Your task to perform on an android device: Do I have any events tomorrow? Image 0: 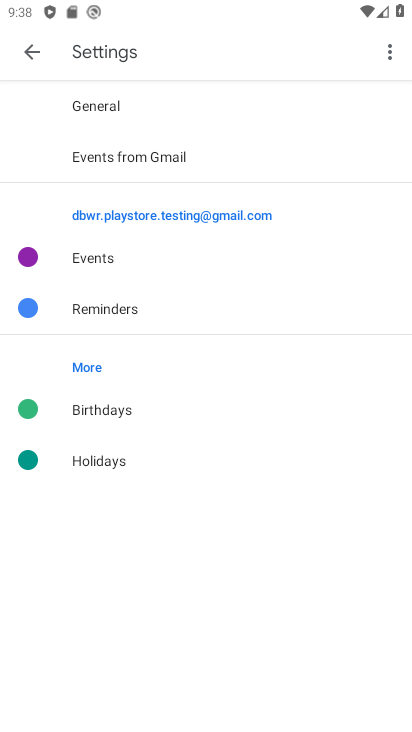
Step 0: press home button
Your task to perform on an android device: Do I have any events tomorrow? Image 1: 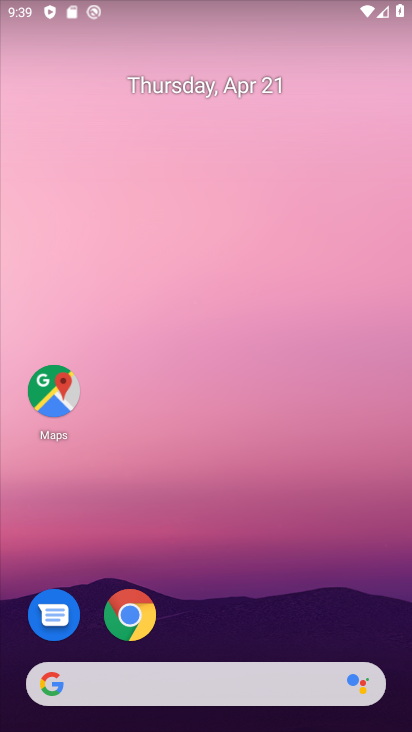
Step 1: drag from (222, 635) to (260, 91)
Your task to perform on an android device: Do I have any events tomorrow? Image 2: 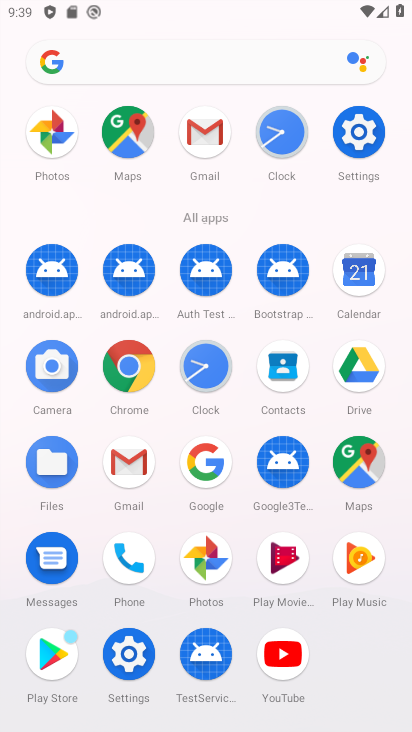
Step 2: click (355, 272)
Your task to perform on an android device: Do I have any events tomorrow? Image 3: 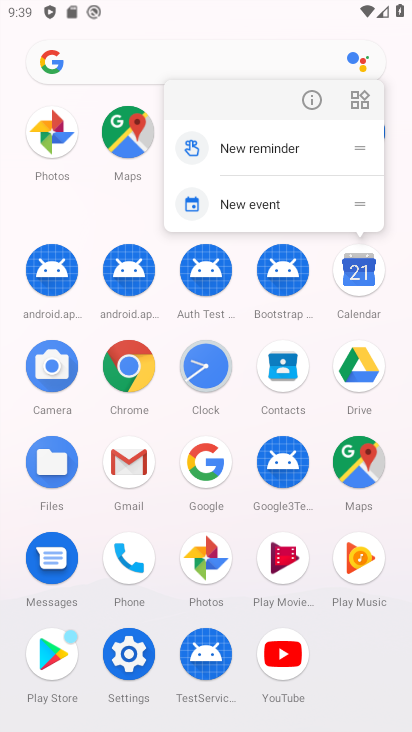
Step 3: click (358, 273)
Your task to perform on an android device: Do I have any events tomorrow? Image 4: 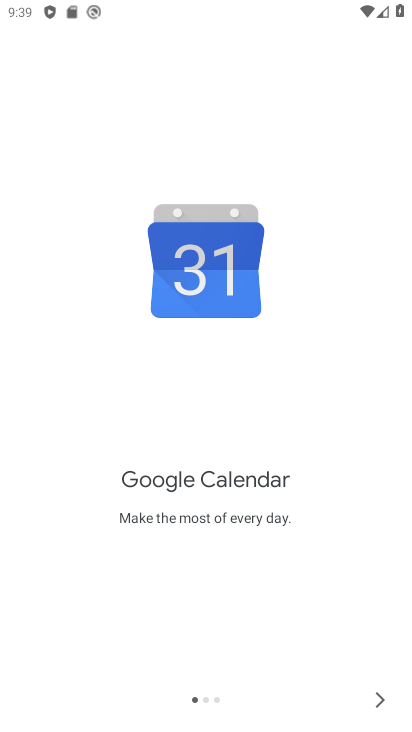
Step 4: click (372, 694)
Your task to perform on an android device: Do I have any events tomorrow? Image 5: 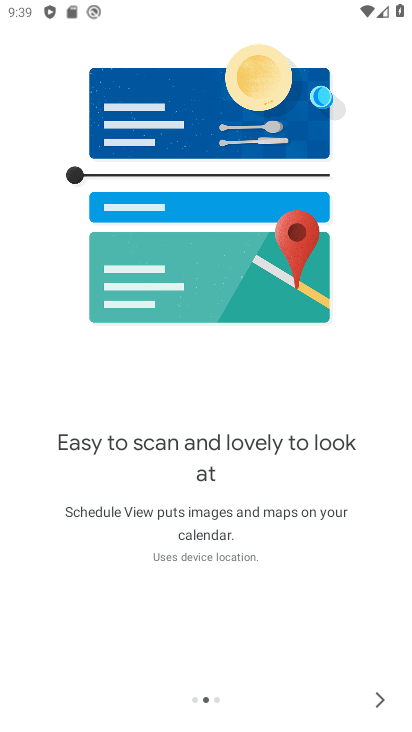
Step 5: click (372, 694)
Your task to perform on an android device: Do I have any events tomorrow? Image 6: 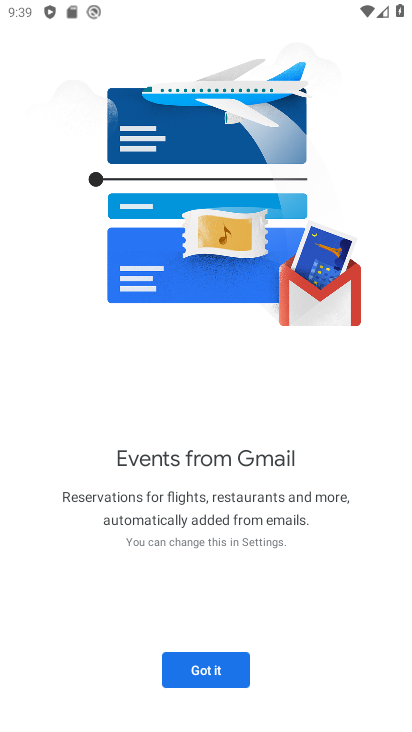
Step 6: click (199, 667)
Your task to perform on an android device: Do I have any events tomorrow? Image 7: 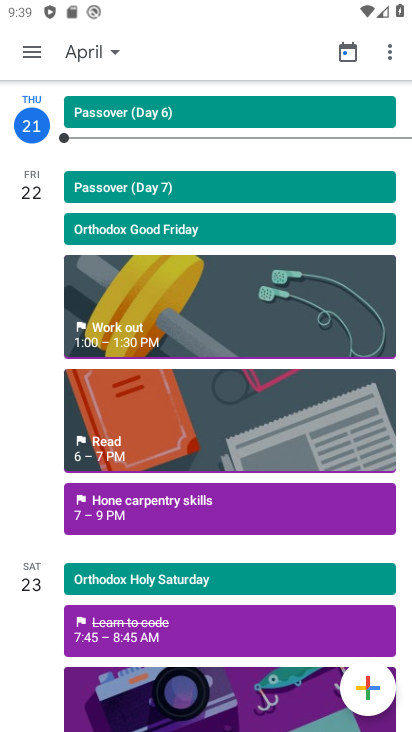
Step 7: click (26, 62)
Your task to perform on an android device: Do I have any events tomorrow? Image 8: 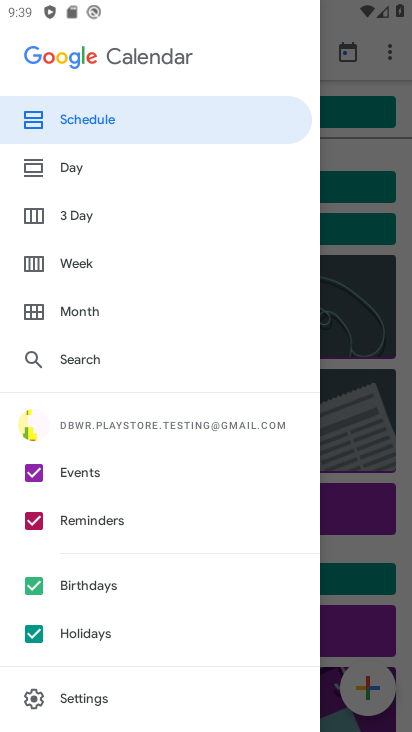
Step 8: click (31, 578)
Your task to perform on an android device: Do I have any events tomorrow? Image 9: 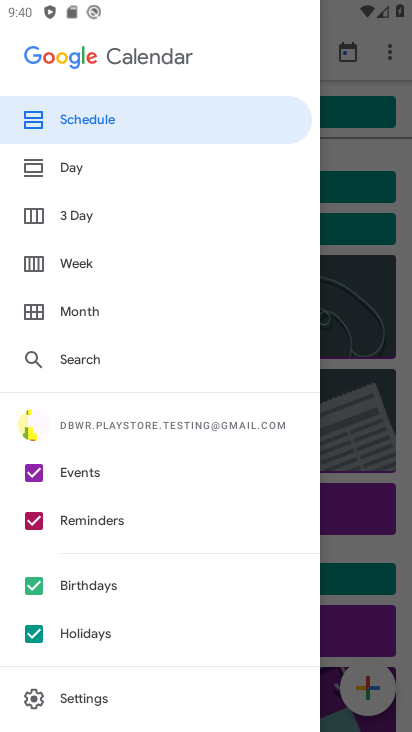
Step 9: click (32, 524)
Your task to perform on an android device: Do I have any events tomorrow? Image 10: 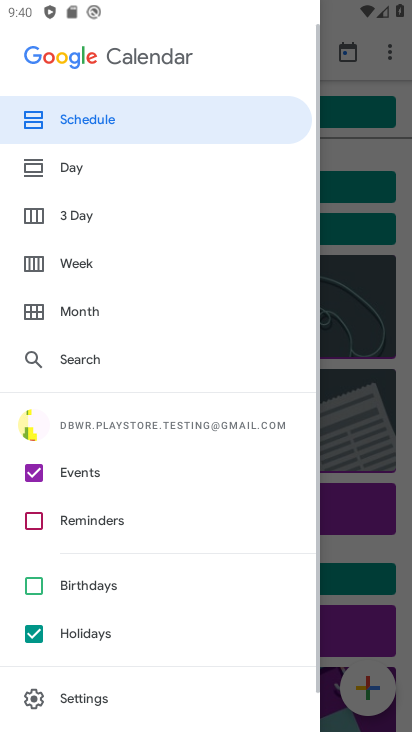
Step 10: click (34, 635)
Your task to perform on an android device: Do I have any events tomorrow? Image 11: 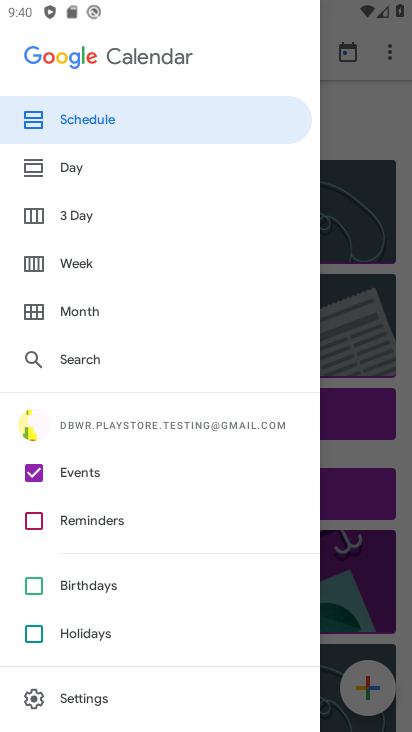
Step 11: click (71, 121)
Your task to perform on an android device: Do I have any events tomorrow? Image 12: 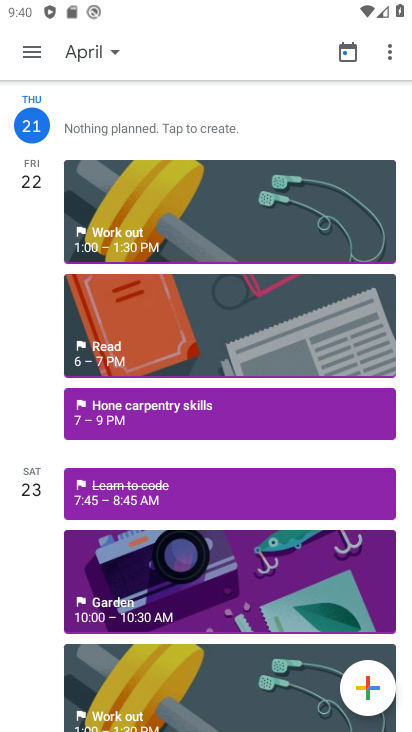
Step 12: click (41, 236)
Your task to perform on an android device: Do I have any events tomorrow? Image 13: 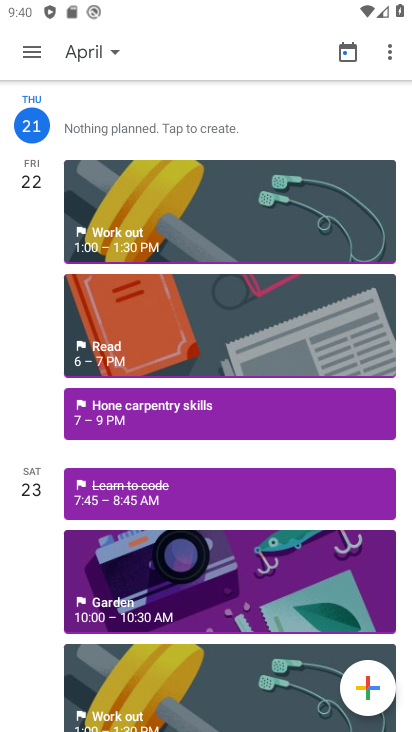
Step 13: click (41, 278)
Your task to perform on an android device: Do I have any events tomorrow? Image 14: 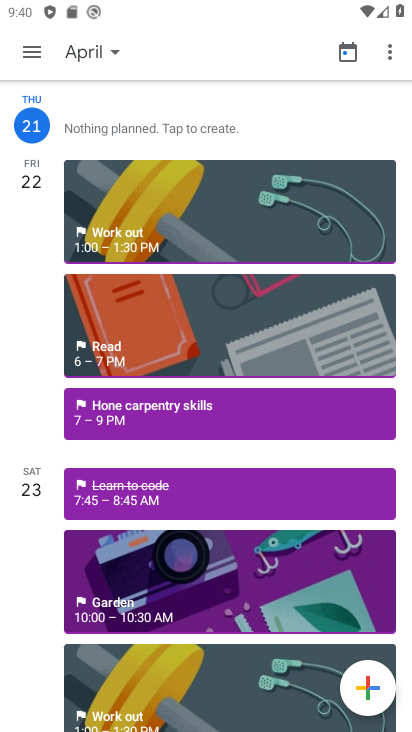
Step 14: click (44, 230)
Your task to perform on an android device: Do I have any events tomorrow? Image 15: 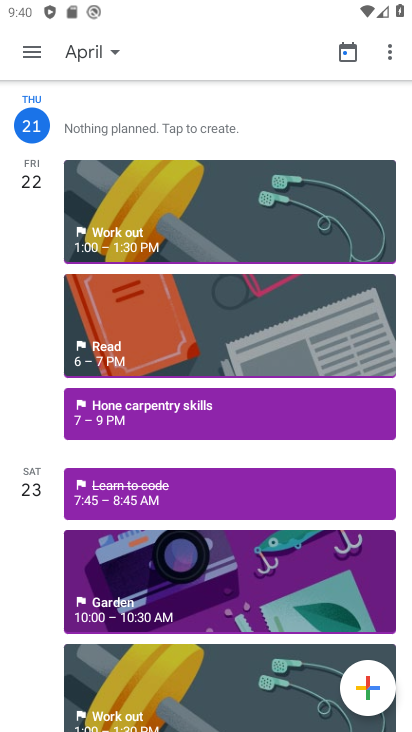
Step 15: click (47, 179)
Your task to perform on an android device: Do I have any events tomorrow? Image 16: 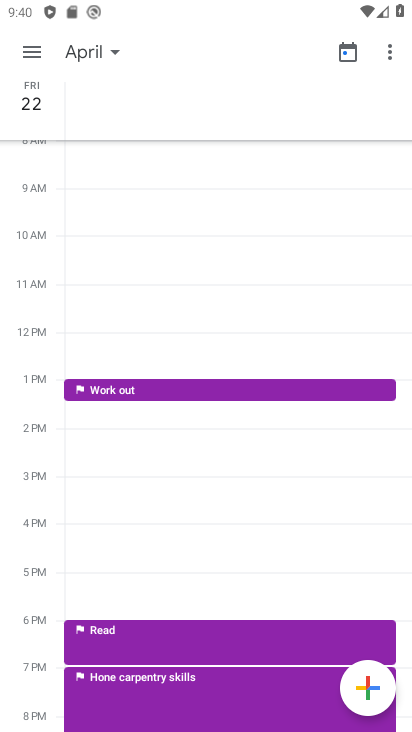
Step 16: click (27, 177)
Your task to perform on an android device: Do I have any events tomorrow? Image 17: 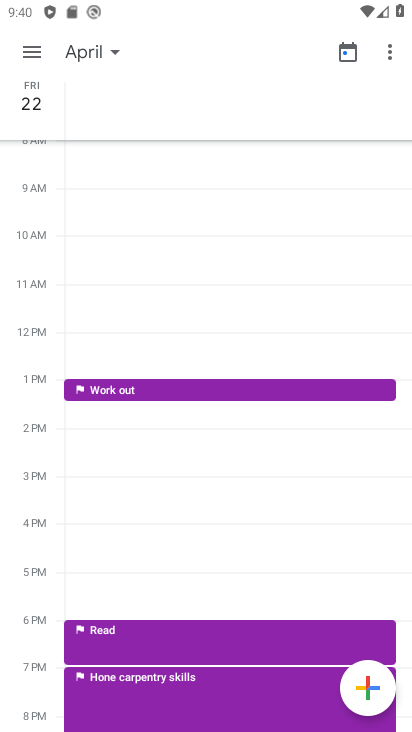
Step 17: task complete